Your task to perform on an android device: Open Google Chrome Image 0: 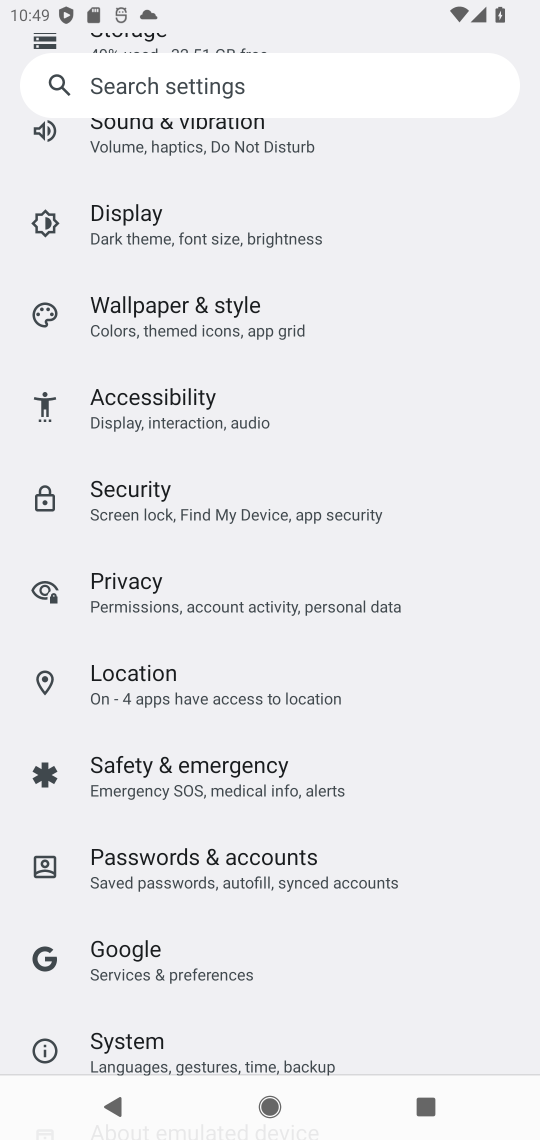
Step 0: press home button
Your task to perform on an android device: Open Google Chrome Image 1: 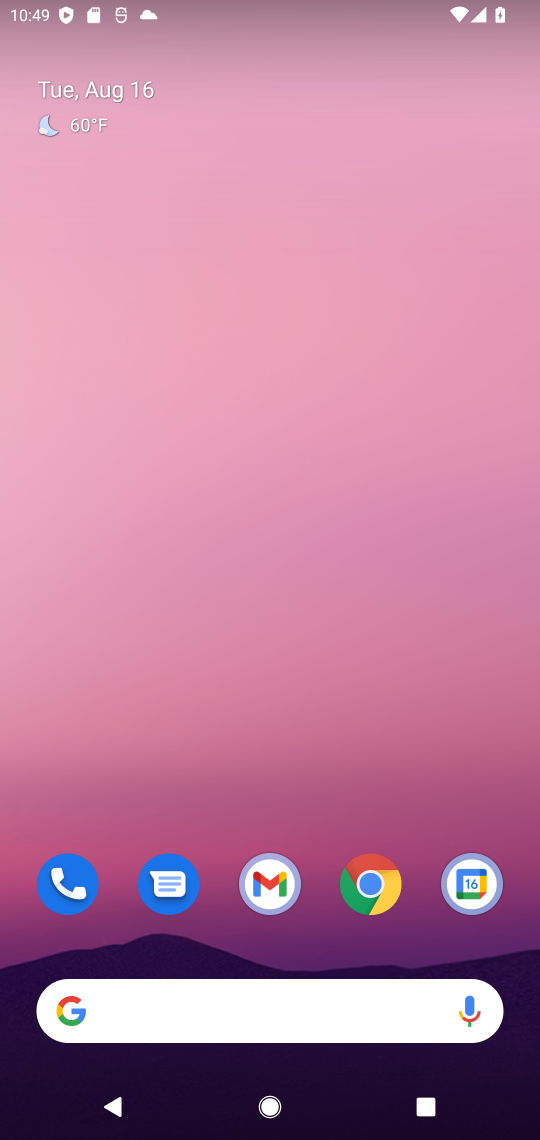
Step 1: click (369, 891)
Your task to perform on an android device: Open Google Chrome Image 2: 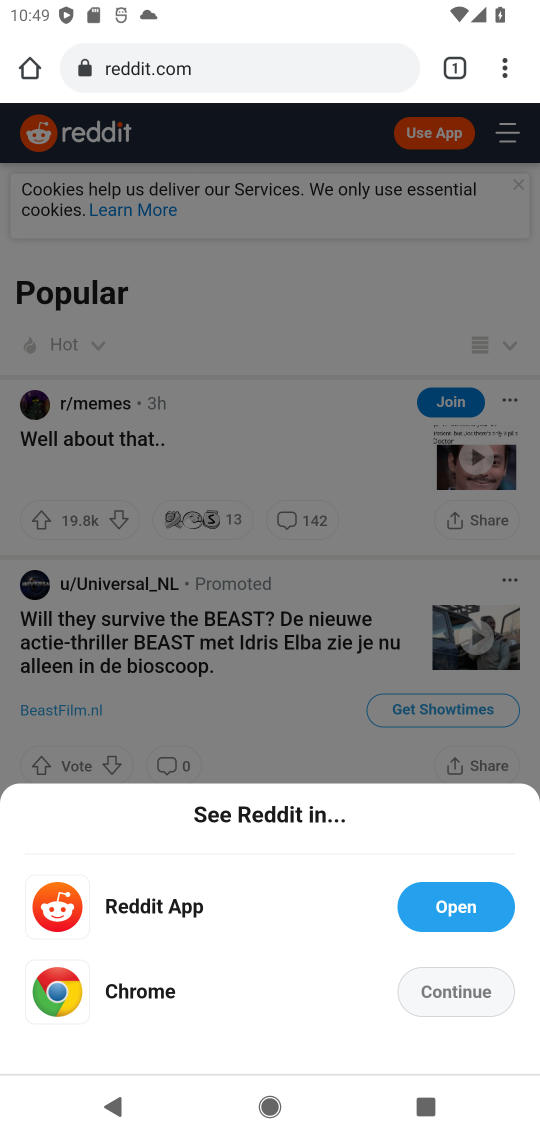
Step 2: task complete